Your task to perform on an android device: Find coffee shops on Maps Image 0: 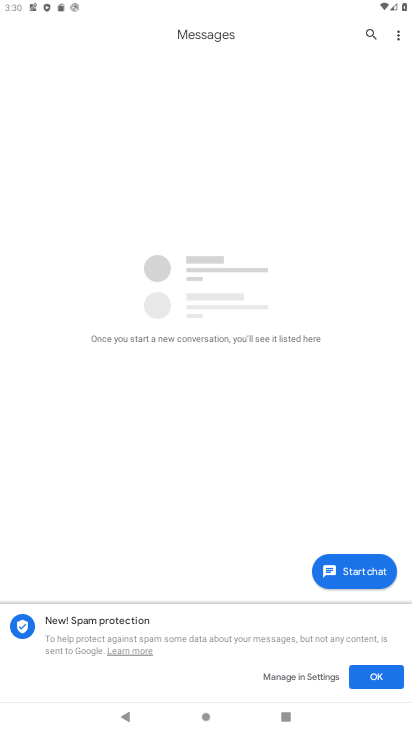
Step 0: press home button
Your task to perform on an android device: Find coffee shops on Maps Image 1: 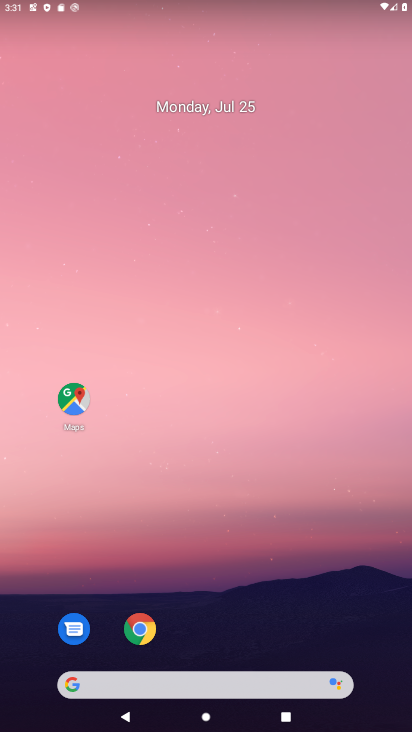
Step 1: drag from (282, 611) to (329, 142)
Your task to perform on an android device: Find coffee shops on Maps Image 2: 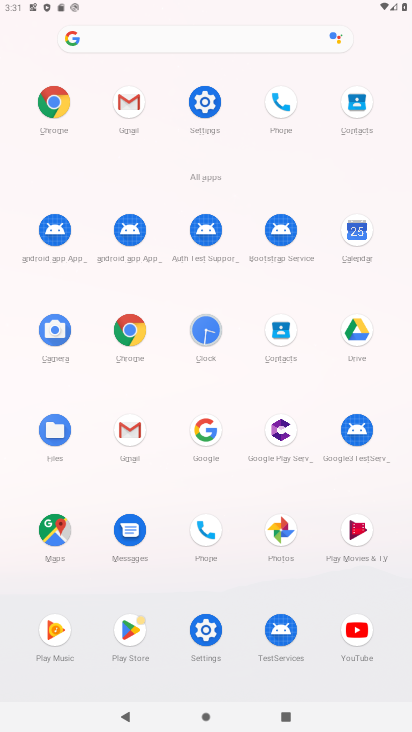
Step 2: click (60, 527)
Your task to perform on an android device: Find coffee shops on Maps Image 3: 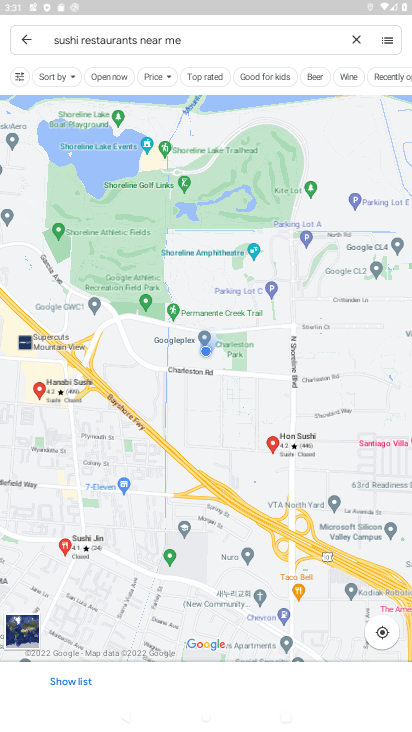
Step 3: click (355, 43)
Your task to perform on an android device: Find coffee shops on Maps Image 4: 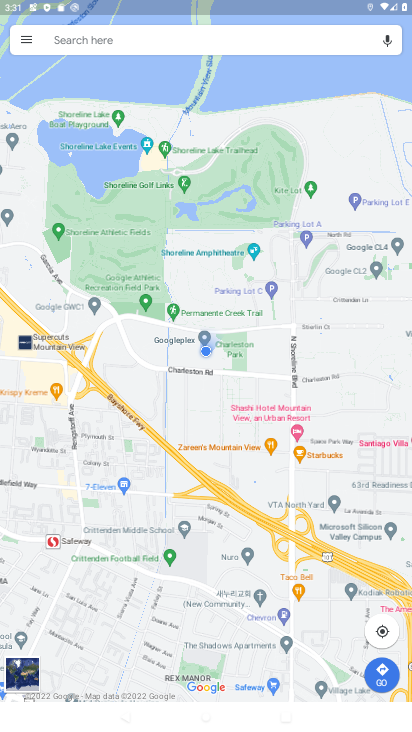
Step 4: click (167, 45)
Your task to perform on an android device: Find coffee shops on Maps Image 5: 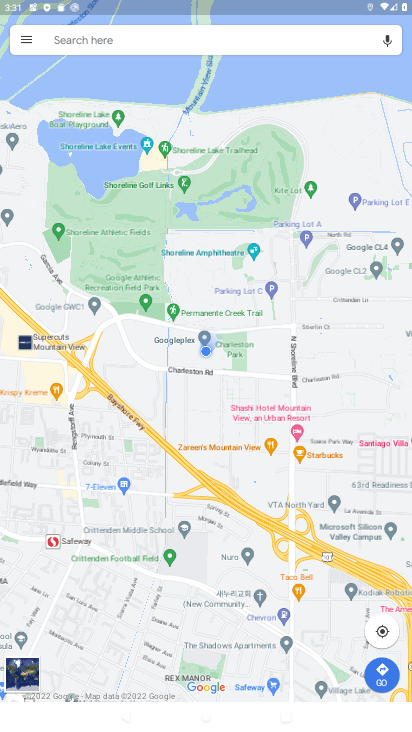
Step 5: click (167, 45)
Your task to perform on an android device: Find coffee shops on Maps Image 6: 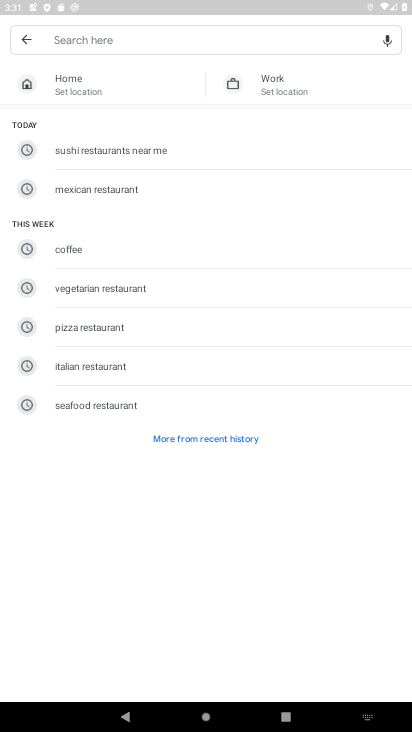
Step 6: type "coffee shops"
Your task to perform on an android device: Find coffee shops on Maps Image 7: 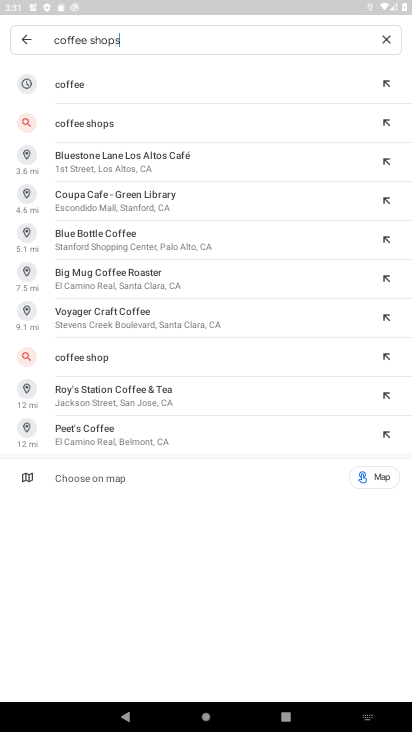
Step 7: click (121, 119)
Your task to perform on an android device: Find coffee shops on Maps Image 8: 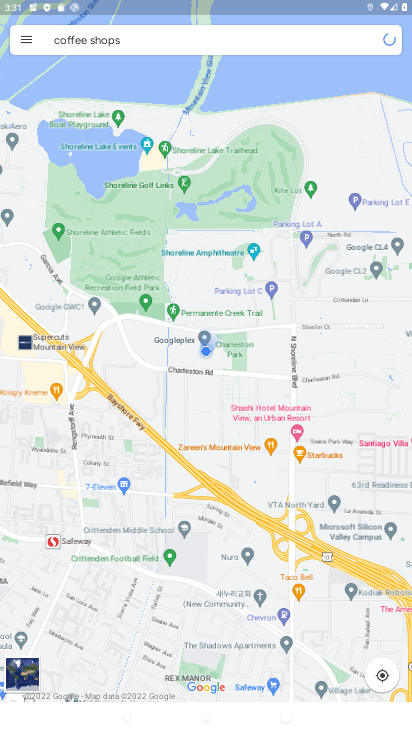
Step 8: task complete